Your task to perform on an android device: View the shopping cart on newegg.com. Search for "apple airpods" on newegg.com, select the first entry, add it to the cart, then select checkout. Image 0: 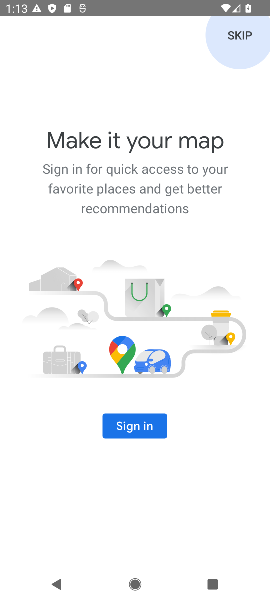
Step 0: press home button
Your task to perform on an android device: View the shopping cart on newegg.com. Search for "apple airpods" on newegg.com, select the first entry, add it to the cart, then select checkout. Image 1: 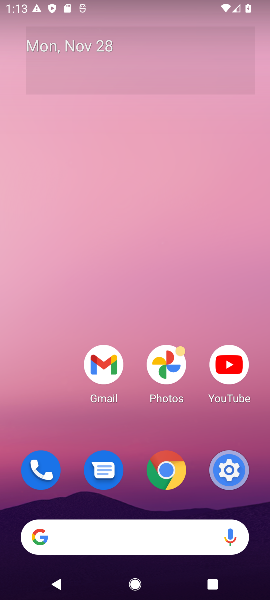
Step 1: click (114, 542)
Your task to perform on an android device: View the shopping cart on newegg.com. Search for "apple airpods" on newegg.com, select the first entry, add it to the cart, then select checkout. Image 2: 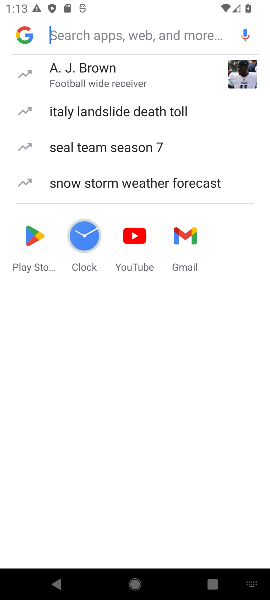
Step 2: type "newegg.com"
Your task to perform on an android device: View the shopping cart on newegg.com. Search for "apple airpods" on newegg.com, select the first entry, add it to the cart, then select checkout. Image 3: 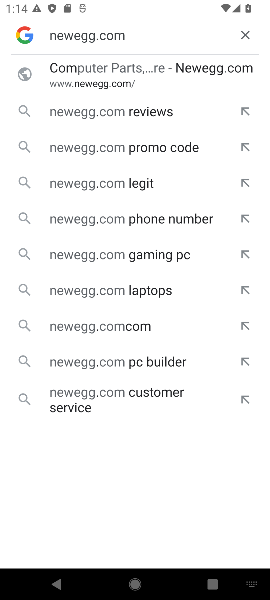
Step 3: click (47, 56)
Your task to perform on an android device: View the shopping cart on newegg.com. Search for "apple airpods" on newegg.com, select the first entry, add it to the cart, then select checkout. Image 4: 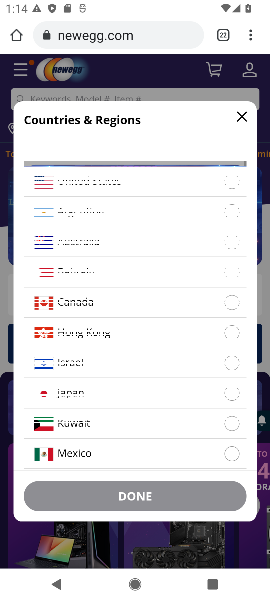
Step 4: click (83, 180)
Your task to perform on an android device: View the shopping cart on newegg.com. Search for "apple airpods" on newegg.com, select the first entry, add it to the cart, then select checkout. Image 5: 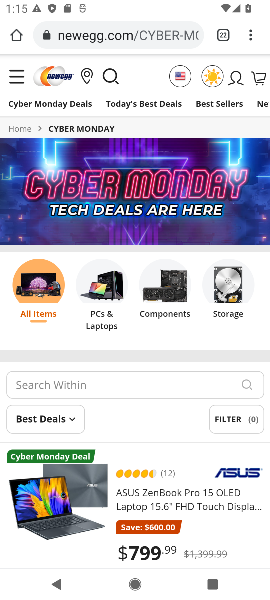
Step 5: task complete